Your task to perform on an android device: Open wifi settings Image 0: 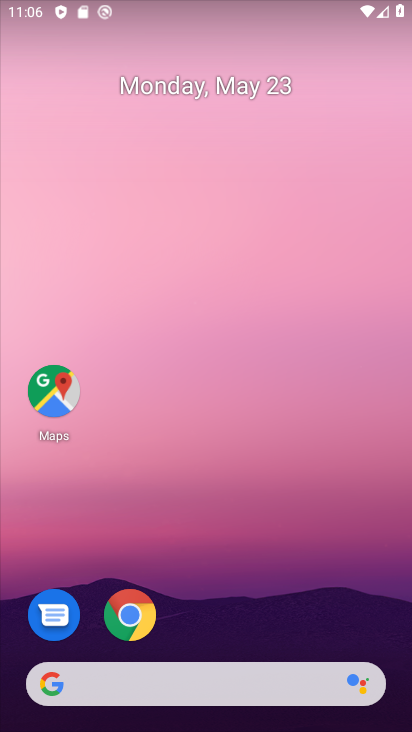
Step 0: drag from (222, 0) to (197, 597)
Your task to perform on an android device: Open wifi settings Image 1: 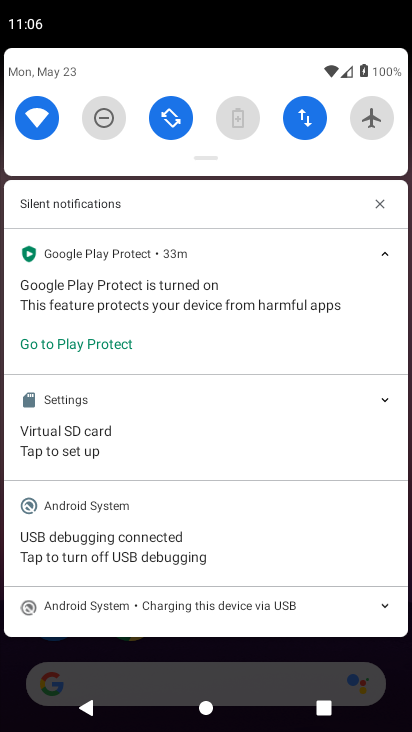
Step 1: click (43, 119)
Your task to perform on an android device: Open wifi settings Image 2: 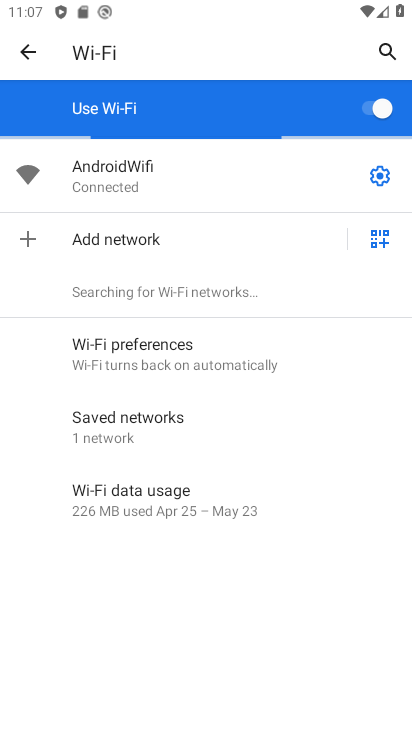
Step 2: task complete